Your task to perform on an android device: Go to calendar. Show me events next week Image 0: 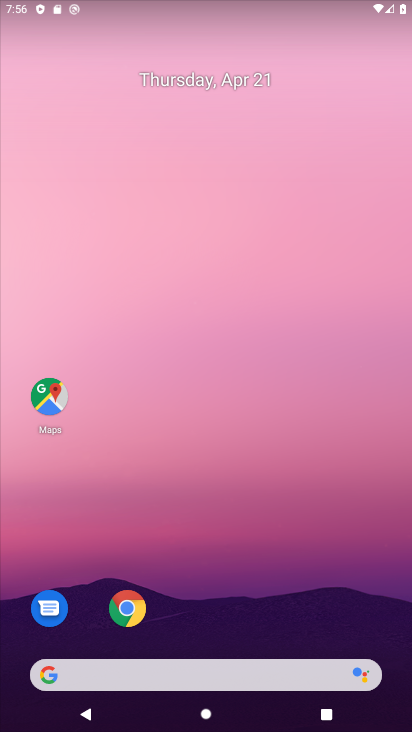
Step 0: click (338, 353)
Your task to perform on an android device: Go to calendar. Show me events next week Image 1: 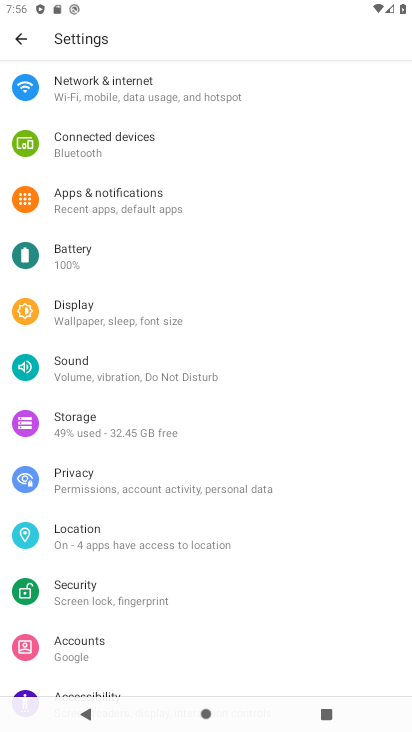
Step 1: press home button
Your task to perform on an android device: Go to calendar. Show me events next week Image 2: 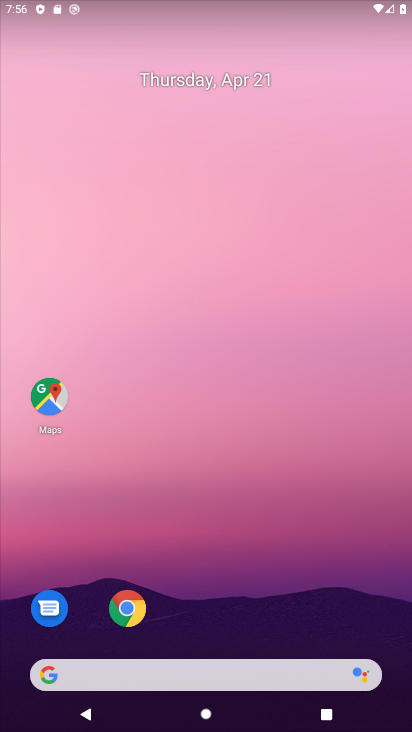
Step 2: drag from (217, 623) to (322, 7)
Your task to perform on an android device: Go to calendar. Show me events next week Image 3: 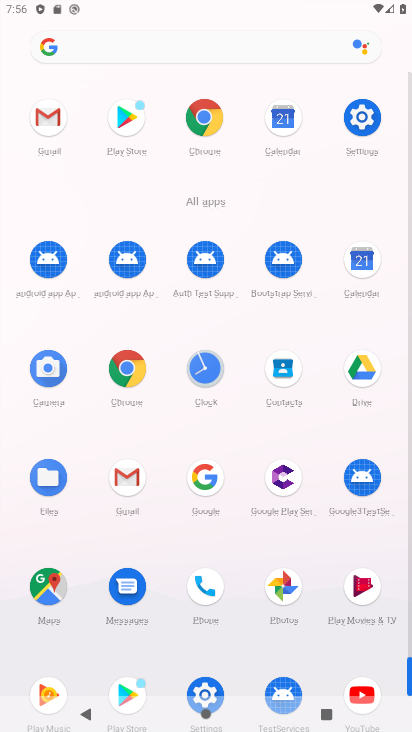
Step 3: click (369, 266)
Your task to perform on an android device: Go to calendar. Show me events next week Image 4: 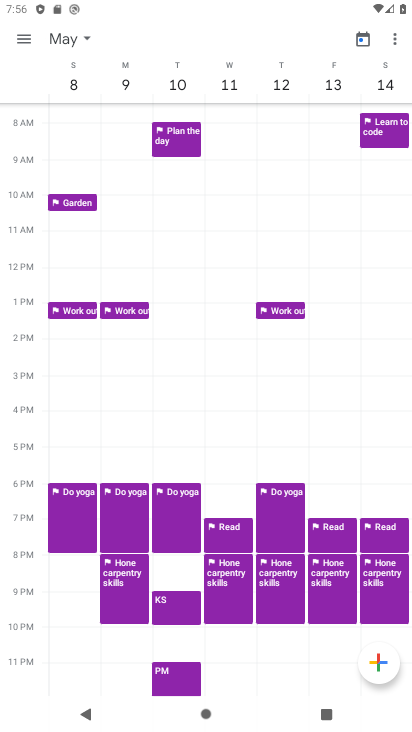
Step 4: task complete